Your task to perform on an android device: Open the phone app and click the voicemail tab. Image 0: 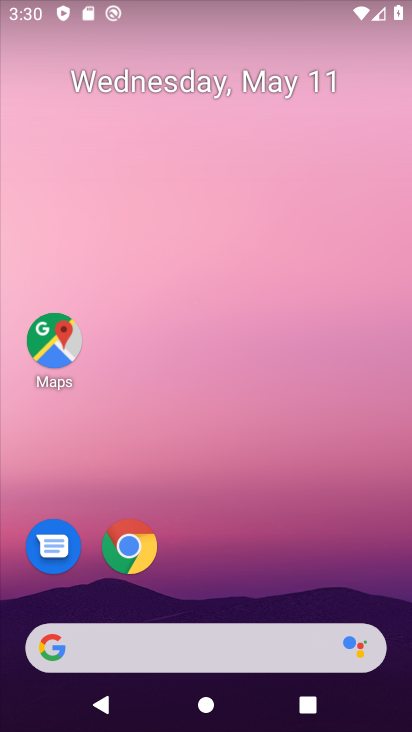
Step 0: drag from (204, 595) to (282, 281)
Your task to perform on an android device: Open the phone app and click the voicemail tab. Image 1: 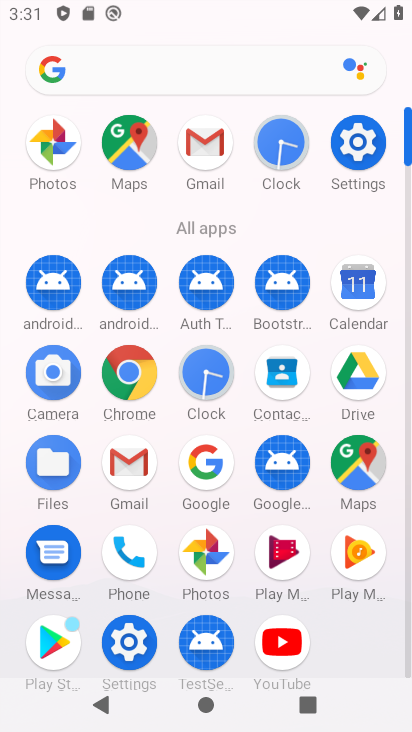
Step 1: drag from (244, 640) to (299, 485)
Your task to perform on an android device: Open the phone app and click the voicemail tab. Image 2: 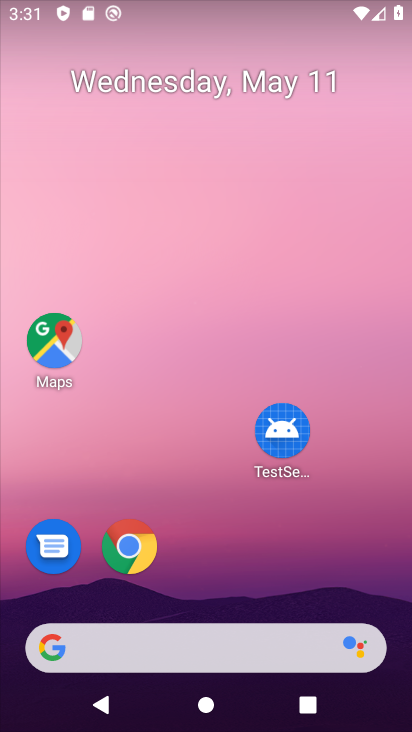
Step 2: drag from (231, 606) to (378, 159)
Your task to perform on an android device: Open the phone app and click the voicemail tab. Image 3: 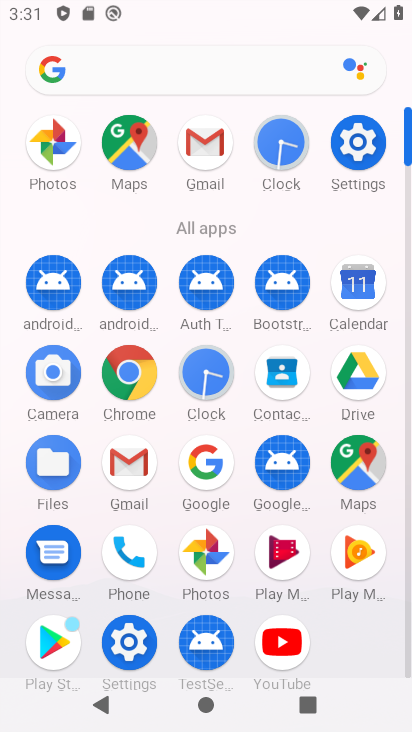
Step 3: click (138, 570)
Your task to perform on an android device: Open the phone app and click the voicemail tab. Image 4: 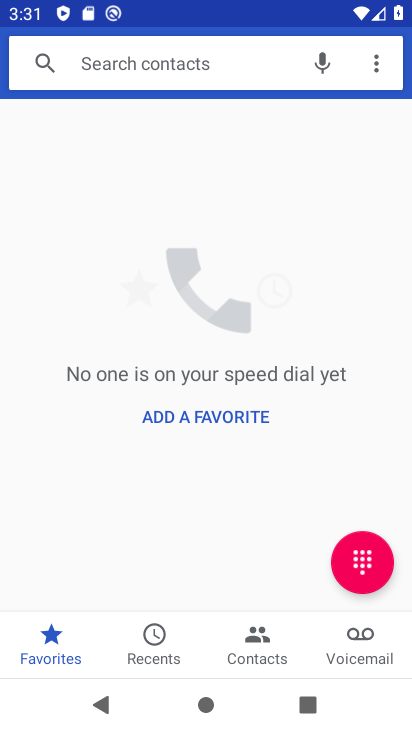
Step 4: click (377, 641)
Your task to perform on an android device: Open the phone app and click the voicemail tab. Image 5: 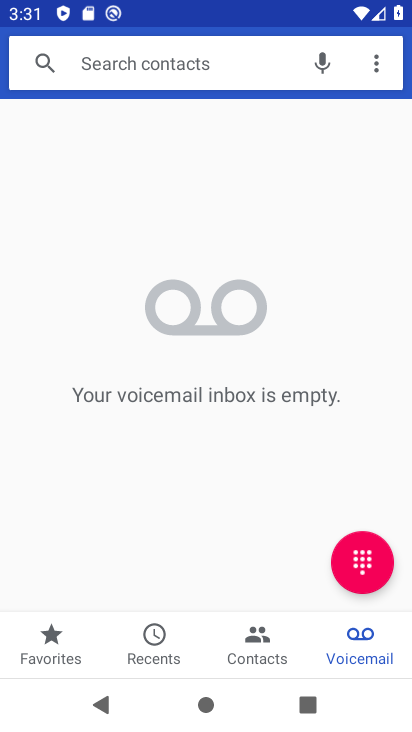
Step 5: task complete